Your task to perform on an android device: Open settings Image 0: 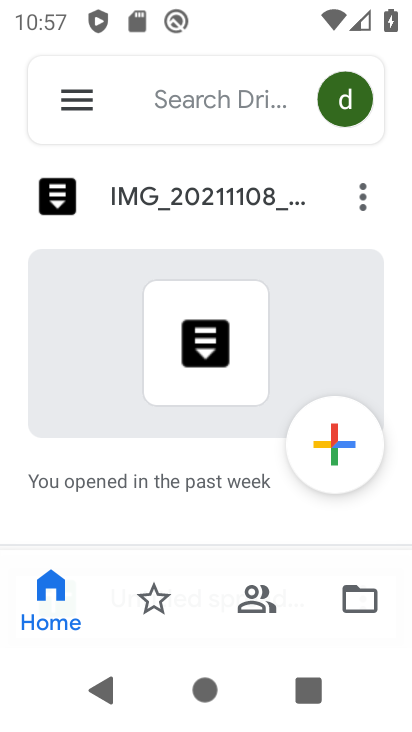
Step 0: press home button
Your task to perform on an android device: Open settings Image 1: 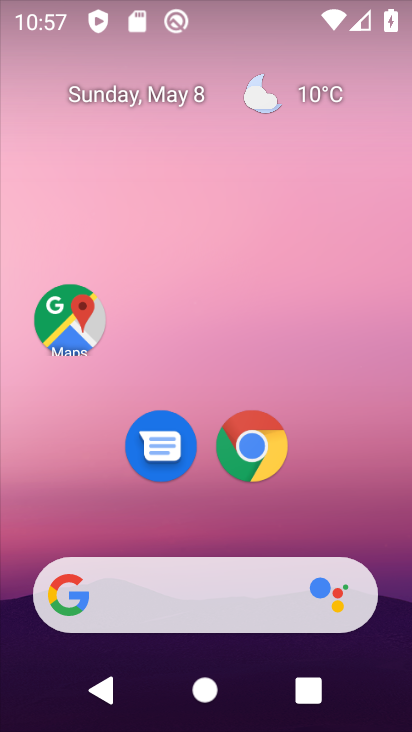
Step 1: drag from (264, 530) to (270, 4)
Your task to perform on an android device: Open settings Image 2: 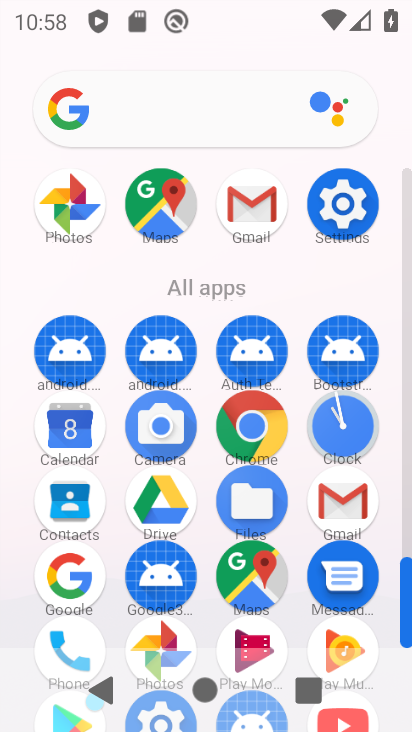
Step 2: click (333, 207)
Your task to perform on an android device: Open settings Image 3: 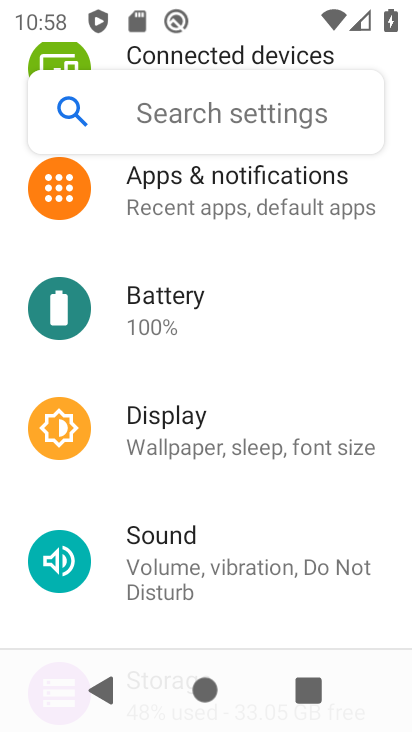
Step 3: task complete